Your task to perform on an android device: change the clock display to show seconds Image 0: 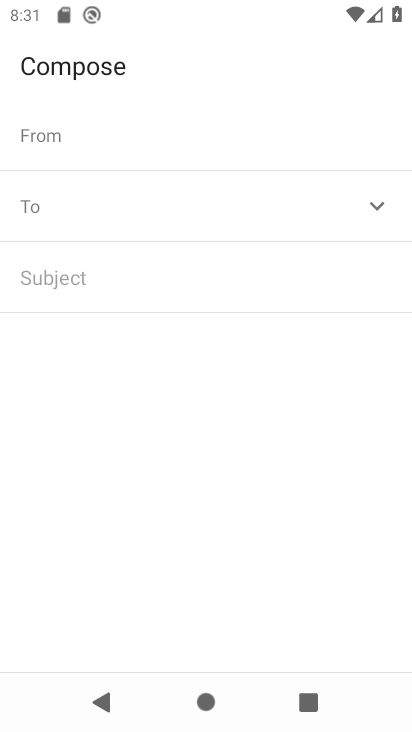
Step 0: press home button
Your task to perform on an android device: change the clock display to show seconds Image 1: 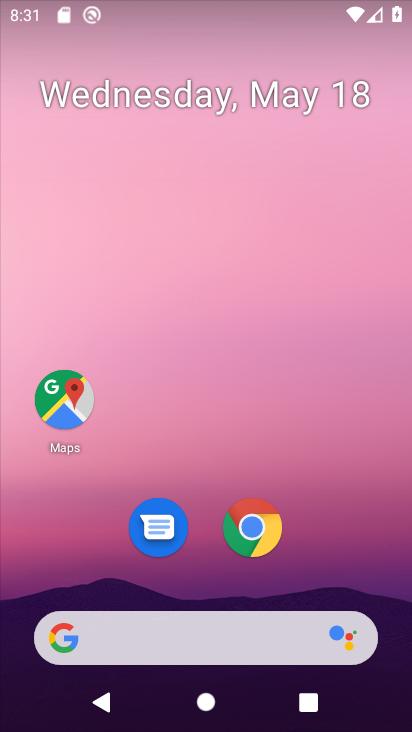
Step 1: drag from (287, 582) to (241, 27)
Your task to perform on an android device: change the clock display to show seconds Image 2: 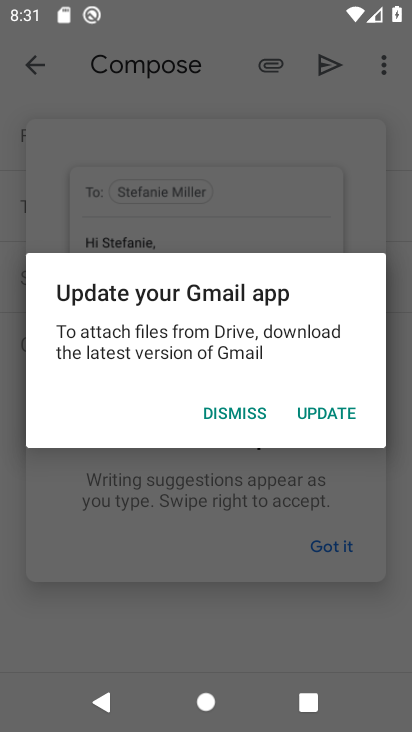
Step 2: press home button
Your task to perform on an android device: change the clock display to show seconds Image 3: 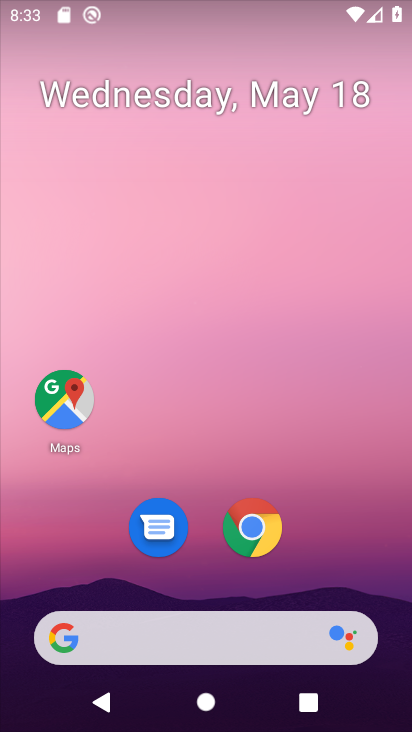
Step 3: drag from (277, 575) to (290, 271)
Your task to perform on an android device: change the clock display to show seconds Image 4: 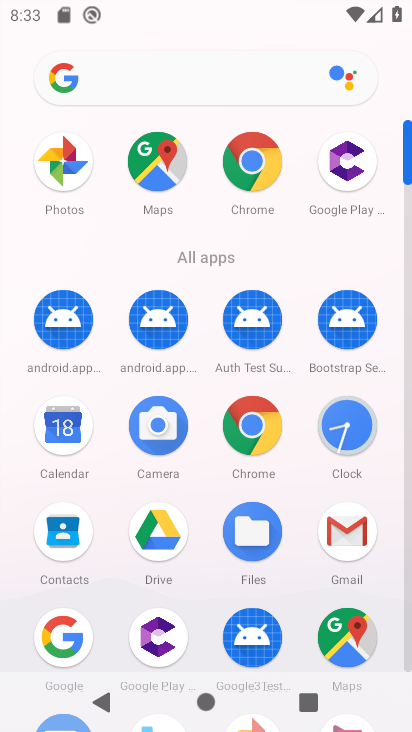
Step 4: click (341, 444)
Your task to perform on an android device: change the clock display to show seconds Image 5: 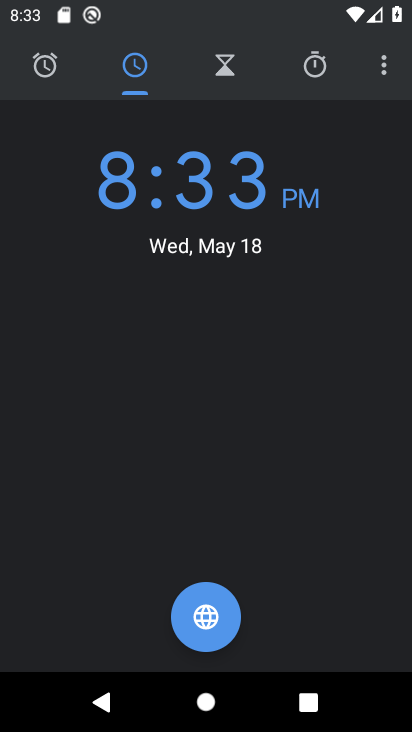
Step 5: click (400, 74)
Your task to perform on an android device: change the clock display to show seconds Image 6: 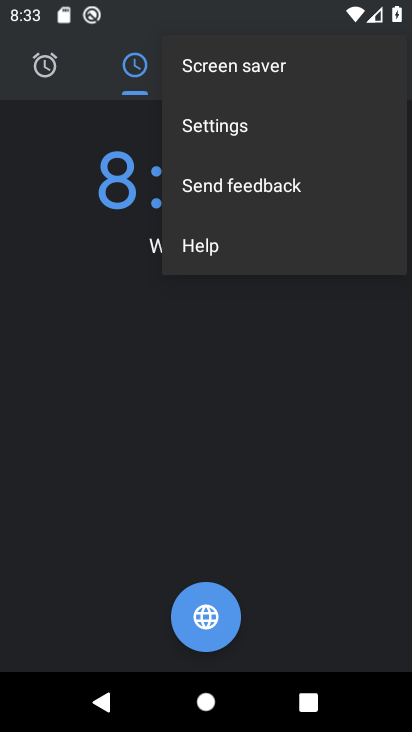
Step 6: click (248, 138)
Your task to perform on an android device: change the clock display to show seconds Image 7: 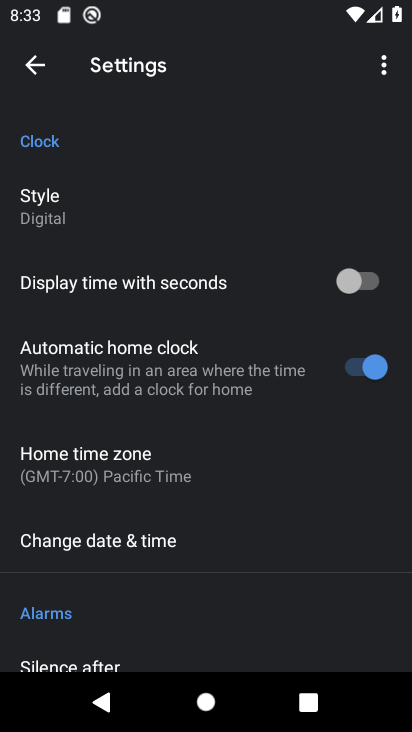
Step 7: drag from (218, 496) to (179, 141)
Your task to perform on an android device: change the clock display to show seconds Image 8: 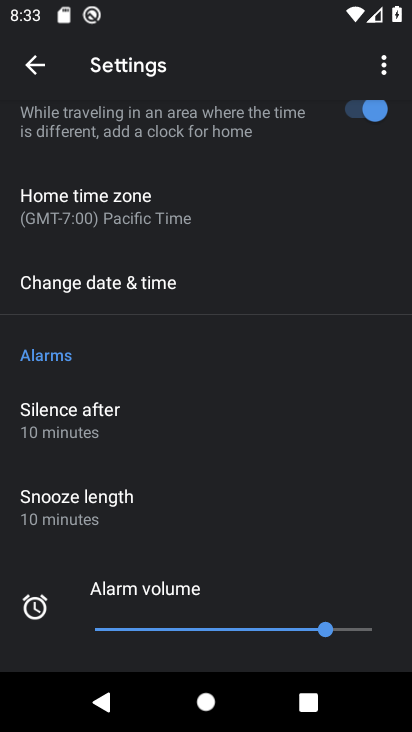
Step 8: drag from (280, 200) to (280, 425)
Your task to perform on an android device: change the clock display to show seconds Image 9: 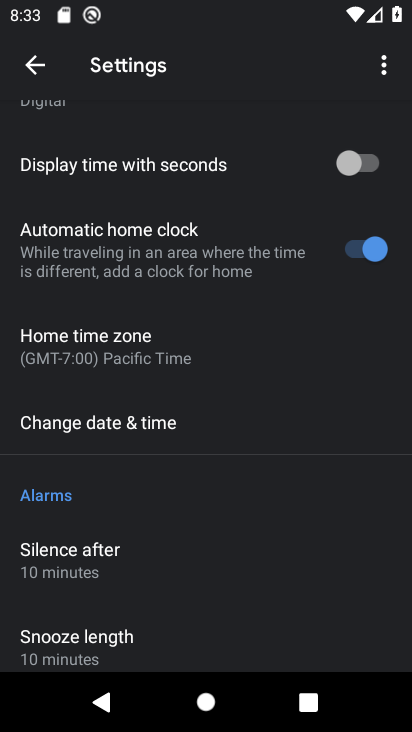
Step 9: click (366, 165)
Your task to perform on an android device: change the clock display to show seconds Image 10: 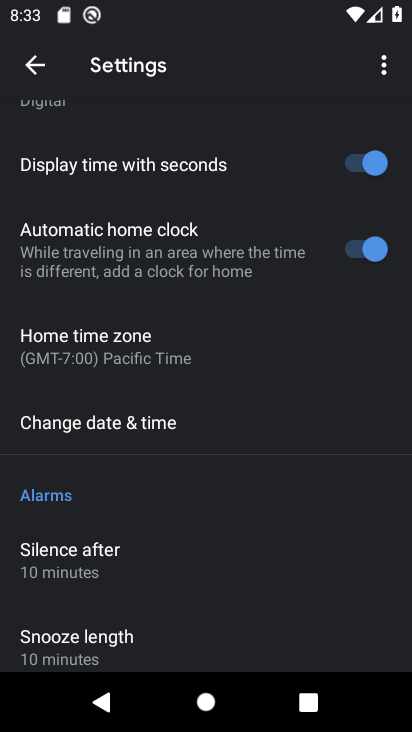
Step 10: task complete